Your task to perform on an android device: Open Google Chrome and click the shortcut for Amazon.com Image 0: 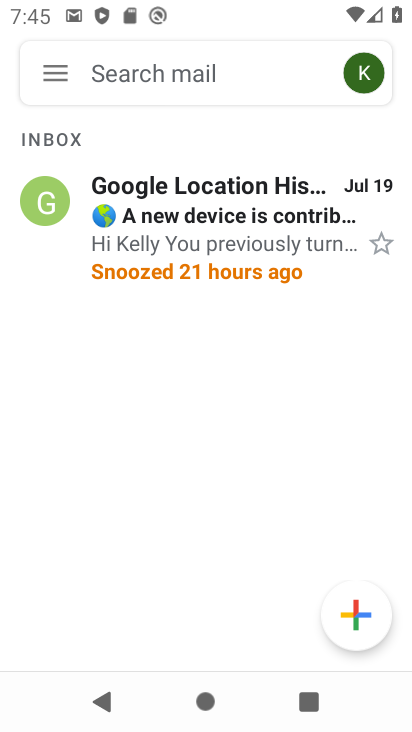
Step 0: press home button
Your task to perform on an android device: Open Google Chrome and click the shortcut for Amazon.com Image 1: 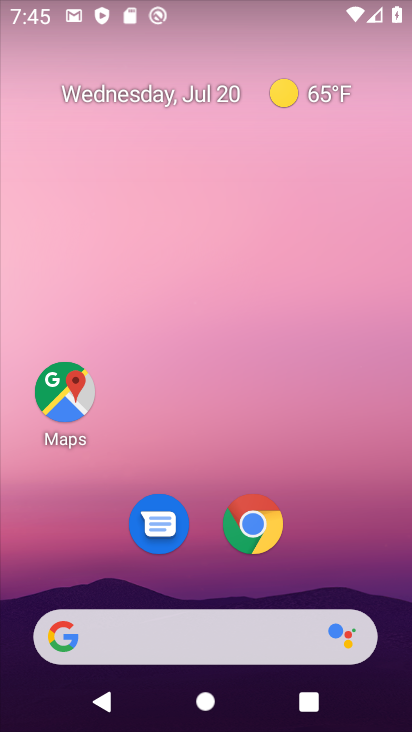
Step 1: click (246, 523)
Your task to perform on an android device: Open Google Chrome and click the shortcut for Amazon.com Image 2: 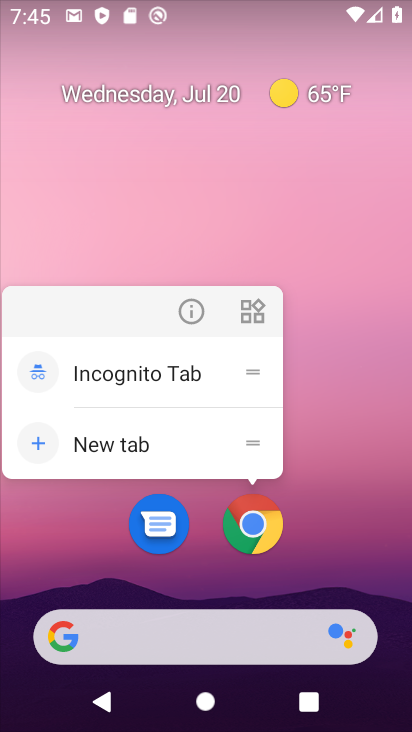
Step 2: click (246, 520)
Your task to perform on an android device: Open Google Chrome and click the shortcut for Amazon.com Image 3: 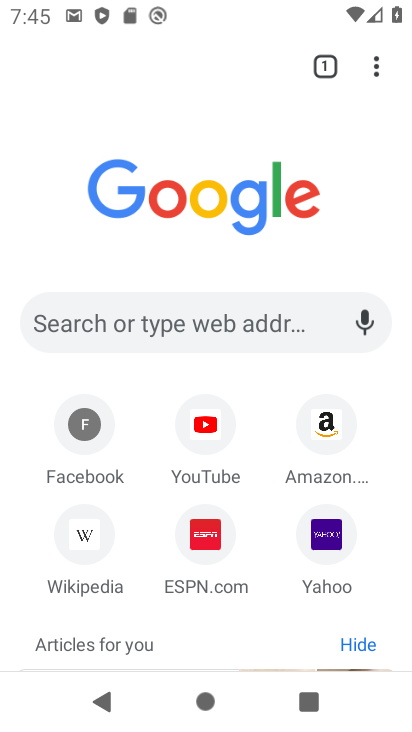
Step 3: click (336, 425)
Your task to perform on an android device: Open Google Chrome and click the shortcut for Amazon.com Image 4: 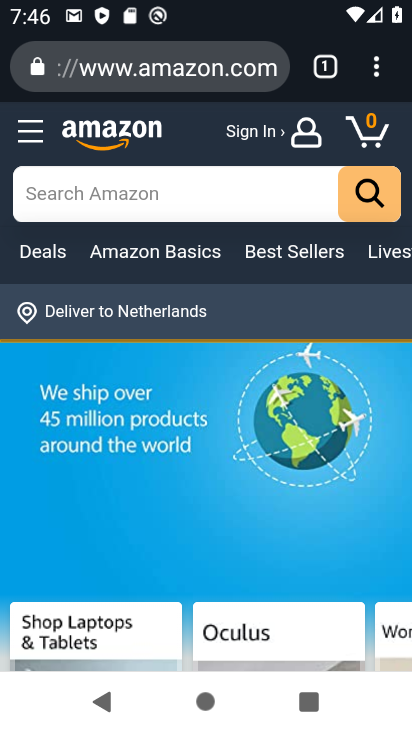
Step 4: task complete